Your task to perform on an android device: Do I have any events today? Image 0: 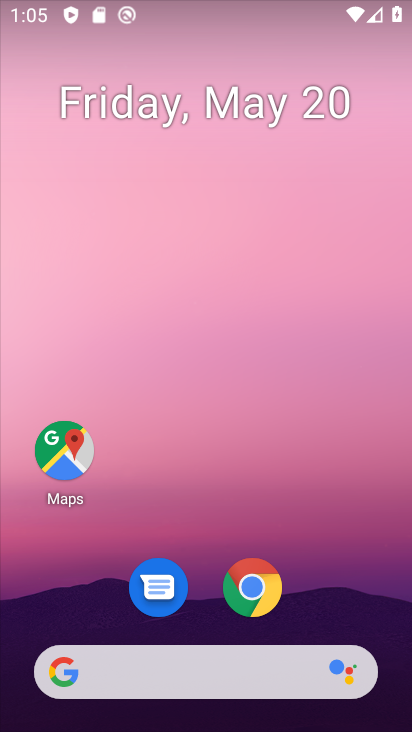
Step 0: drag from (353, 569) to (268, 147)
Your task to perform on an android device: Do I have any events today? Image 1: 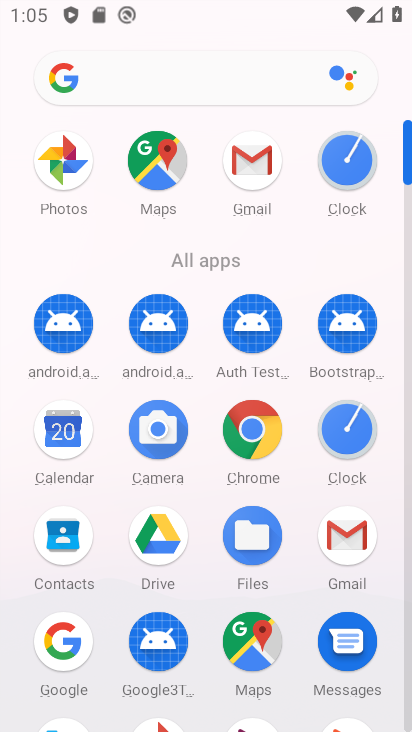
Step 1: click (51, 416)
Your task to perform on an android device: Do I have any events today? Image 2: 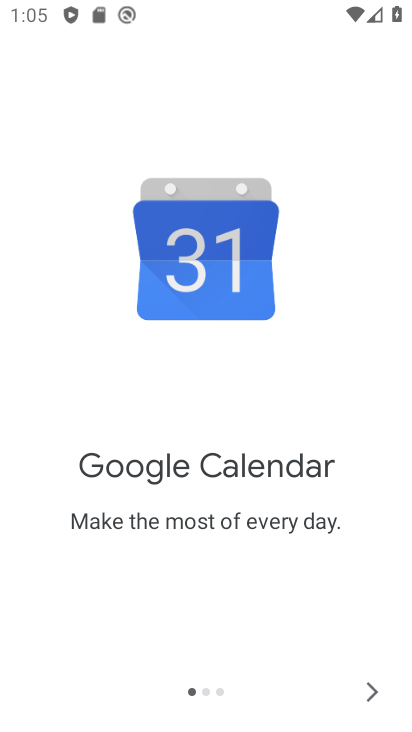
Step 2: click (365, 683)
Your task to perform on an android device: Do I have any events today? Image 3: 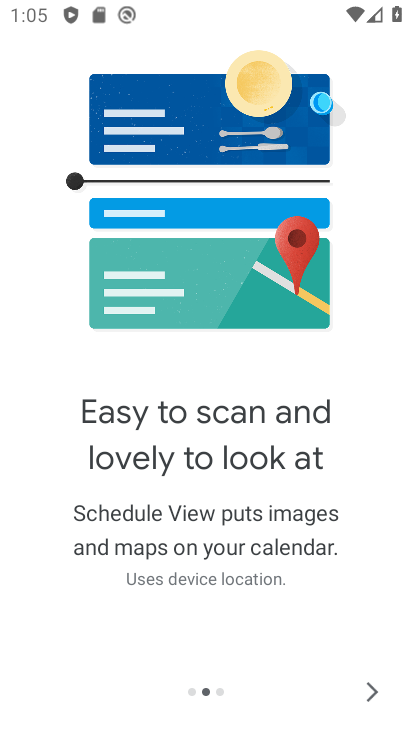
Step 3: click (358, 685)
Your task to perform on an android device: Do I have any events today? Image 4: 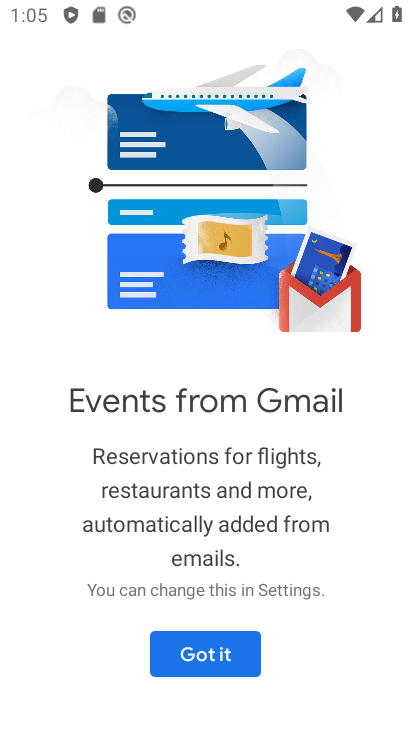
Step 4: click (237, 646)
Your task to perform on an android device: Do I have any events today? Image 5: 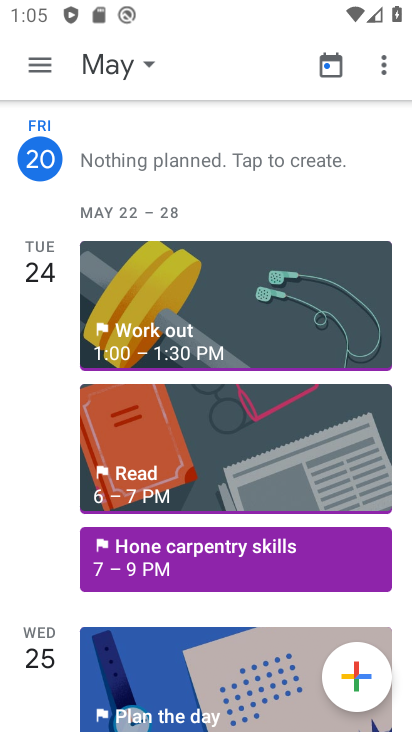
Step 5: drag from (267, 450) to (270, 621)
Your task to perform on an android device: Do I have any events today? Image 6: 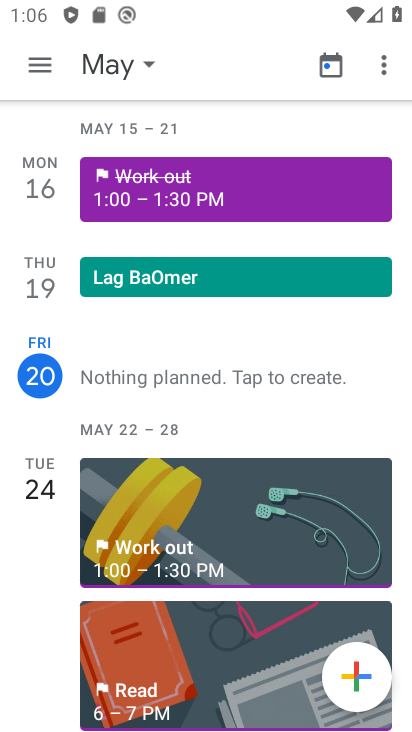
Step 6: click (45, 481)
Your task to perform on an android device: Do I have any events today? Image 7: 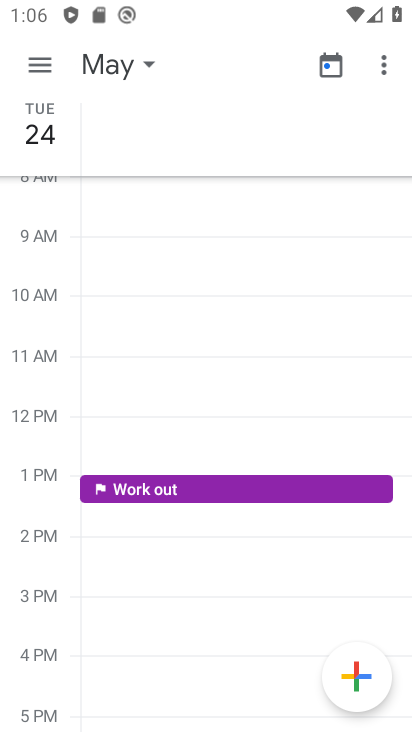
Step 7: task complete